Your task to perform on an android device: install app "Grab" Image 0: 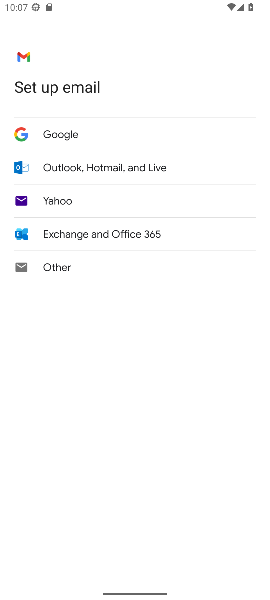
Step 0: press home button
Your task to perform on an android device: install app "Grab" Image 1: 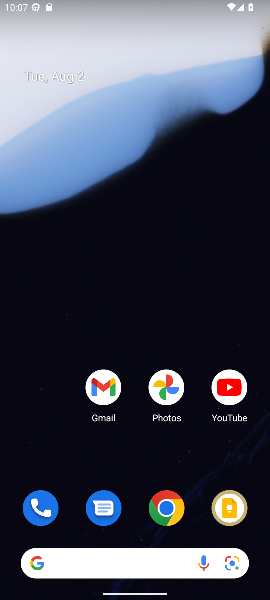
Step 1: drag from (122, 439) to (146, 22)
Your task to perform on an android device: install app "Grab" Image 2: 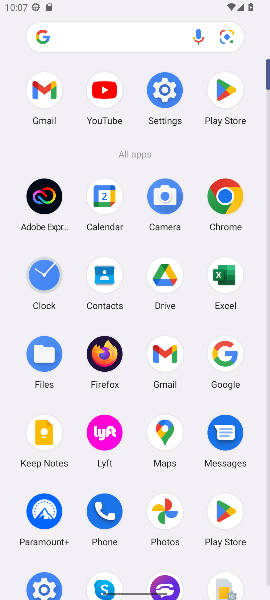
Step 2: click (213, 96)
Your task to perform on an android device: install app "Grab" Image 3: 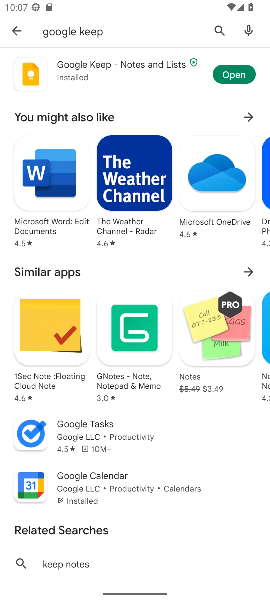
Step 3: click (214, 26)
Your task to perform on an android device: install app "Grab" Image 4: 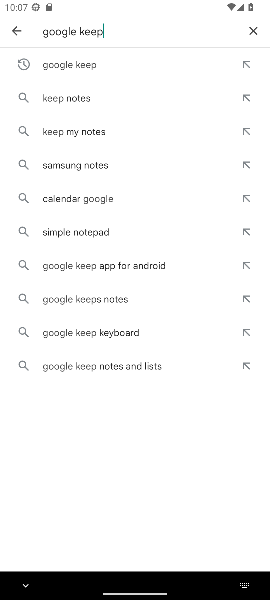
Step 4: click (252, 26)
Your task to perform on an android device: install app "Grab" Image 5: 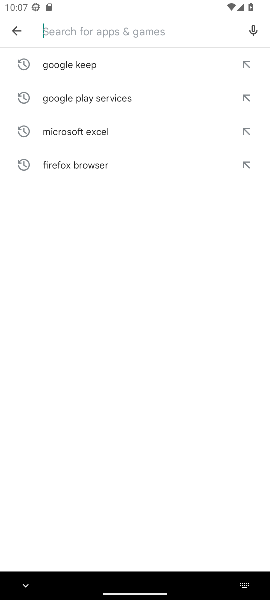
Step 5: type "grab"
Your task to perform on an android device: install app "Grab" Image 6: 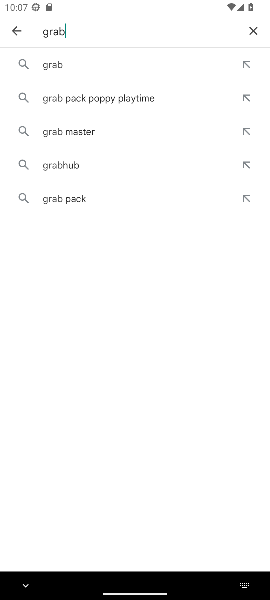
Step 6: click (52, 63)
Your task to perform on an android device: install app "Grab" Image 7: 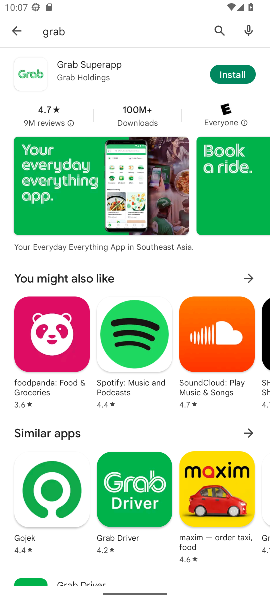
Step 7: click (242, 75)
Your task to perform on an android device: install app "Grab" Image 8: 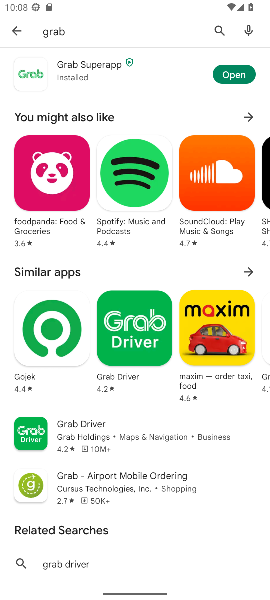
Step 8: task complete